Your task to perform on an android device: Open display settings Image 0: 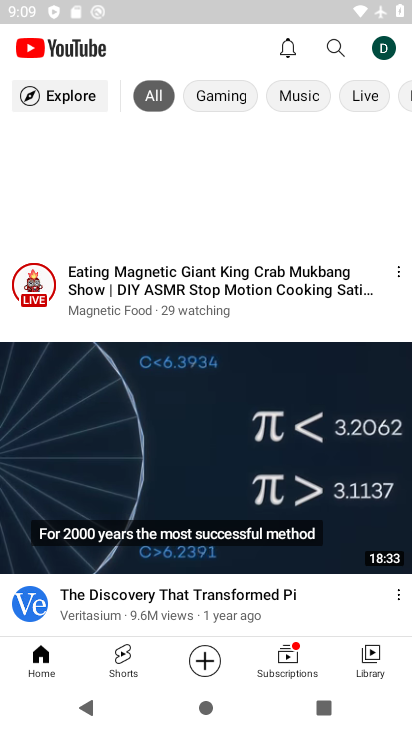
Step 0: press home button
Your task to perform on an android device: Open display settings Image 1: 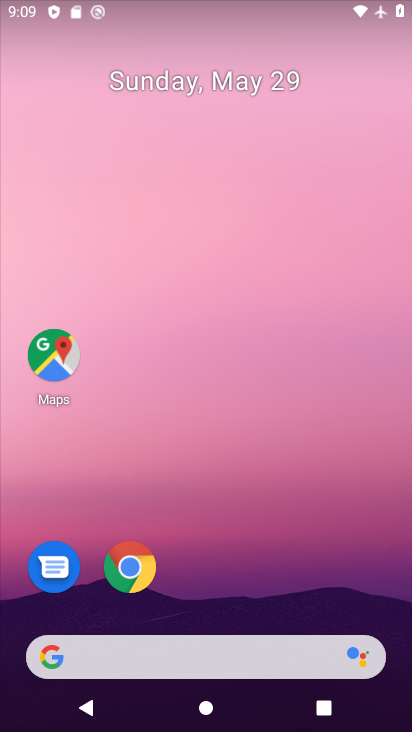
Step 1: drag from (338, 585) to (337, 76)
Your task to perform on an android device: Open display settings Image 2: 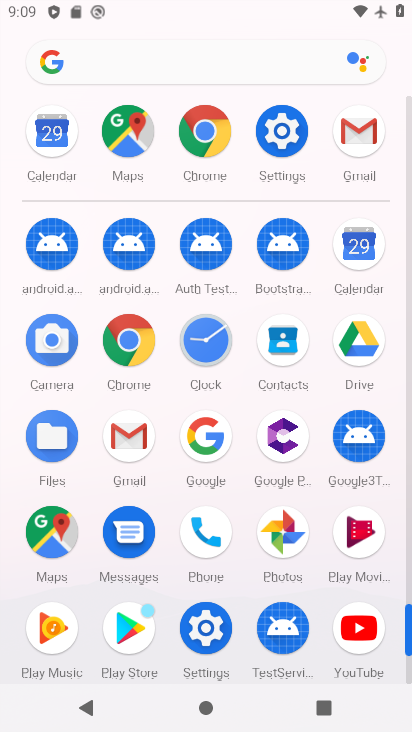
Step 2: click (205, 630)
Your task to perform on an android device: Open display settings Image 3: 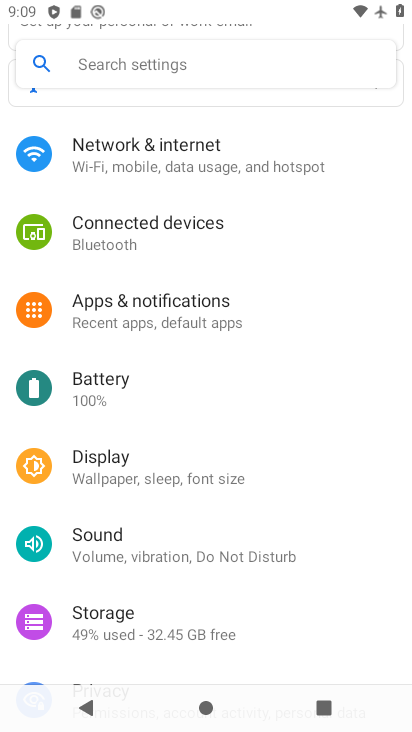
Step 3: click (97, 460)
Your task to perform on an android device: Open display settings Image 4: 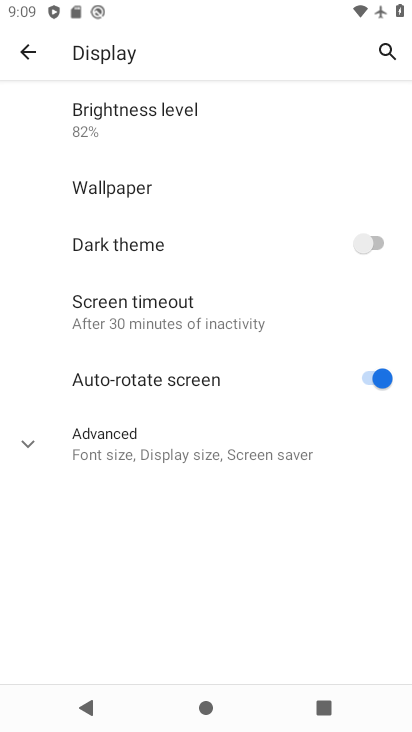
Step 4: click (29, 441)
Your task to perform on an android device: Open display settings Image 5: 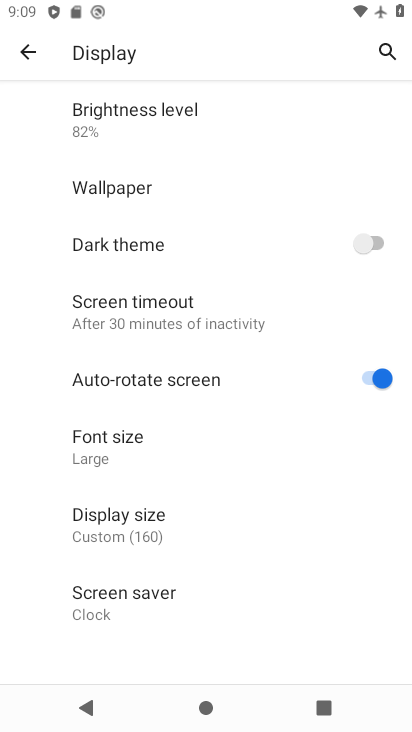
Step 5: task complete